Your task to perform on an android device: Search for sushi restaurants on Maps Image 0: 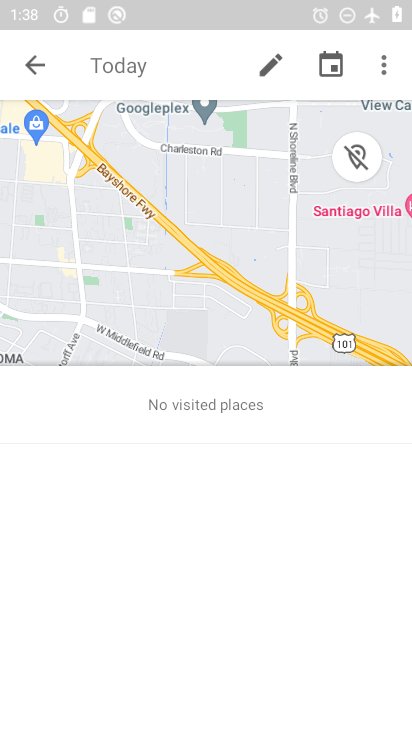
Step 0: click (17, 60)
Your task to perform on an android device: Search for sushi restaurants on Maps Image 1: 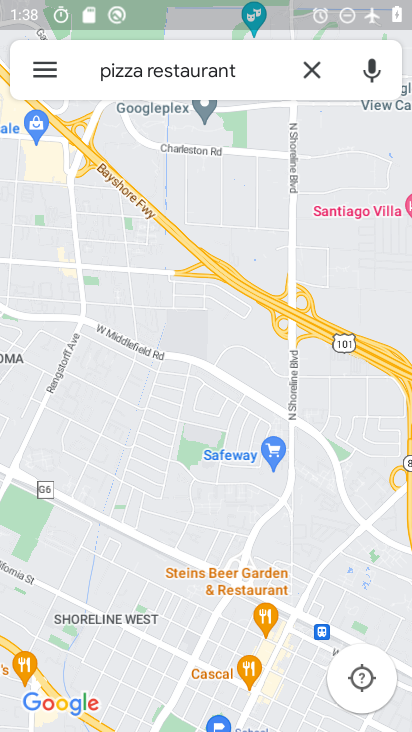
Step 1: click (154, 67)
Your task to perform on an android device: Search for sushi restaurants on Maps Image 2: 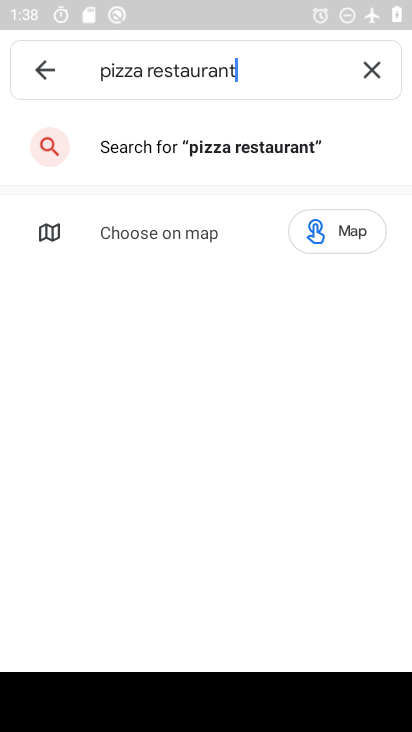
Step 2: click (375, 63)
Your task to perform on an android device: Search for sushi restaurants on Maps Image 3: 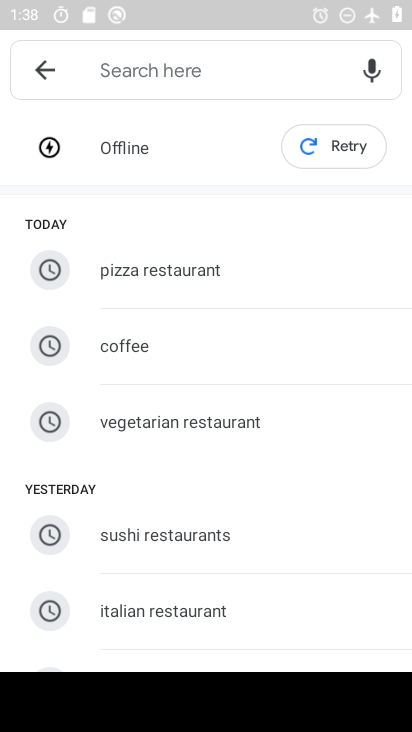
Step 3: click (227, 545)
Your task to perform on an android device: Search for sushi restaurants on Maps Image 4: 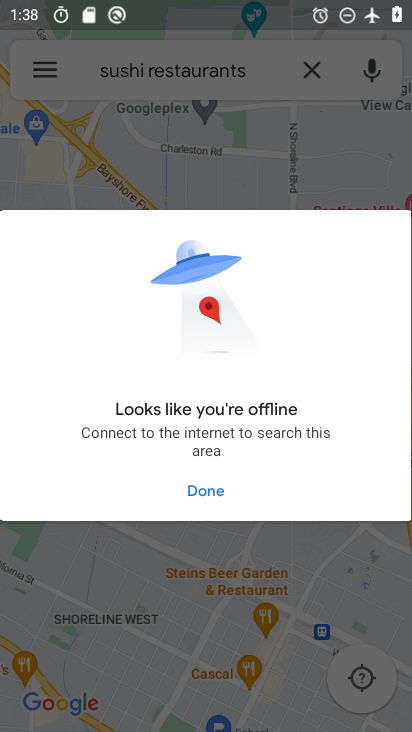
Step 4: task complete